Your task to perform on an android device: open wifi settings Image 0: 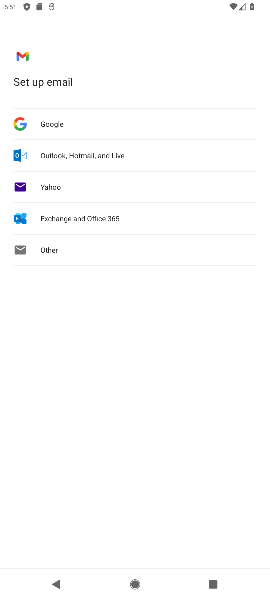
Step 0: press home button
Your task to perform on an android device: open wifi settings Image 1: 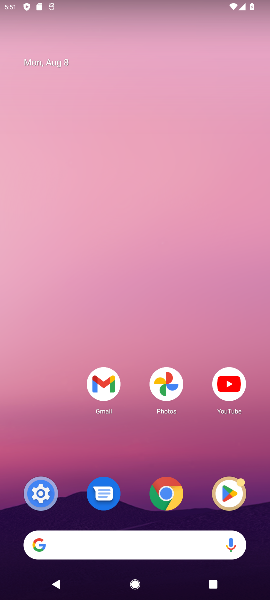
Step 1: click (131, 64)
Your task to perform on an android device: open wifi settings Image 2: 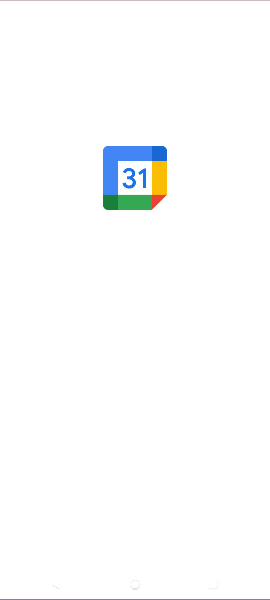
Step 2: drag from (124, 529) to (144, 153)
Your task to perform on an android device: open wifi settings Image 3: 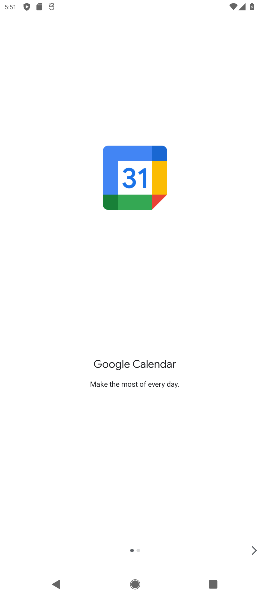
Step 3: press home button
Your task to perform on an android device: open wifi settings Image 4: 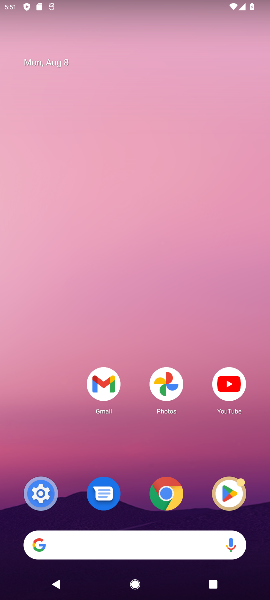
Step 4: drag from (142, 532) to (156, 255)
Your task to perform on an android device: open wifi settings Image 5: 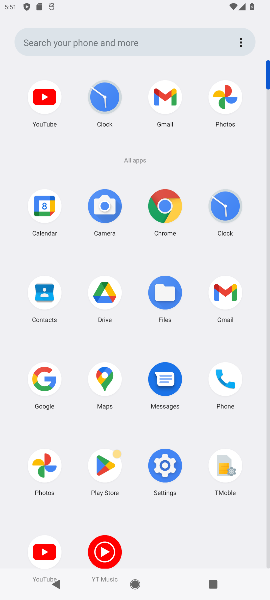
Step 5: click (160, 476)
Your task to perform on an android device: open wifi settings Image 6: 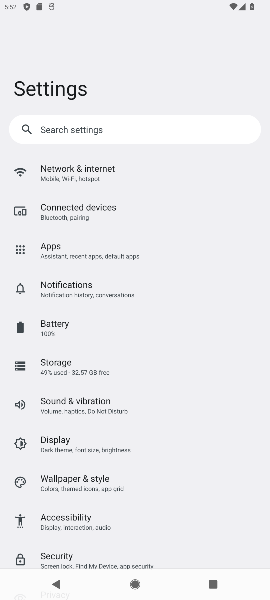
Step 6: click (49, 178)
Your task to perform on an android device: open wifi settings Image 7: 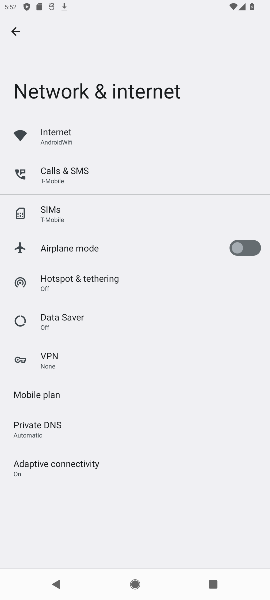
Step 7: click (54, 136)
Your task to perform on an android device: open wifi settings Image 8: 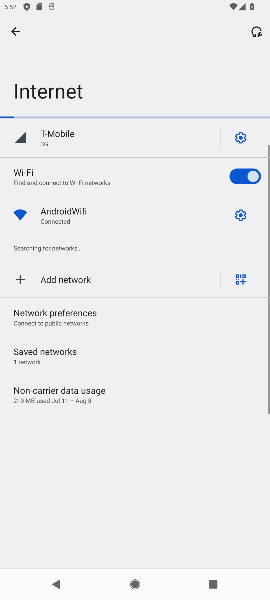
Step 8: click (238, 137)
Your task to perform on an android device: open wifi settings Image 9: 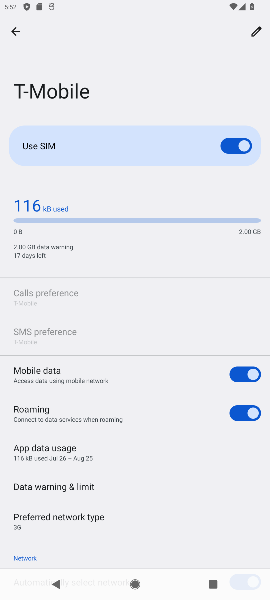
Step 9: task complete